Your task to perform on an android device: turn on airplane mode Image 0: 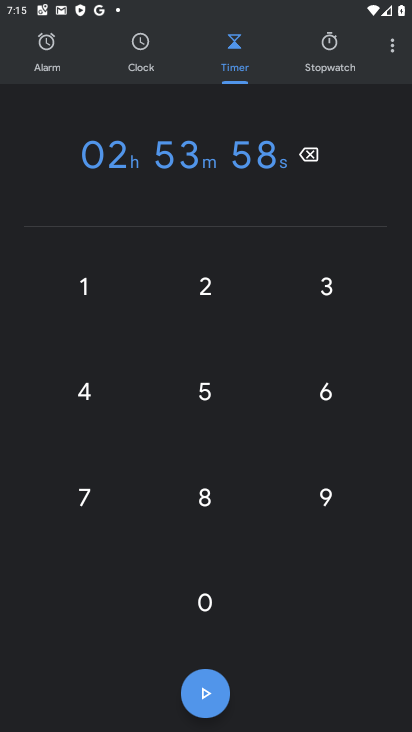
Step 0: press home button
Your task to perform on an android device: turn on airplane mode Image 1: 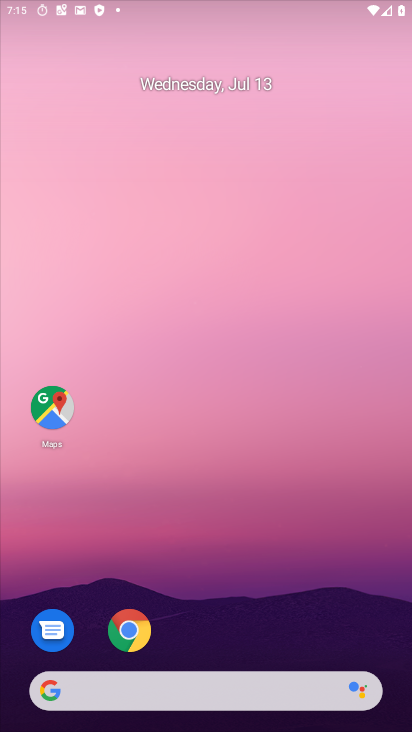
Step 1: drag from (310, 493) to (221, 30)
Your task to perform on an android device: turn on airplane mode Image 2: 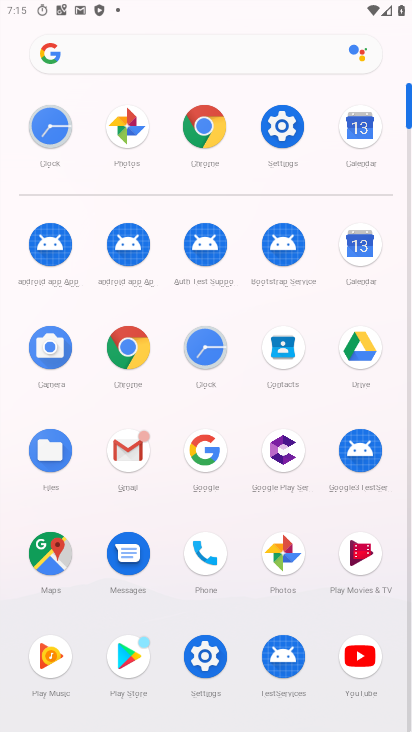
Step 2: drag from (271, 50) to (352, 551)
Your task to perform on an android device: turn on airplane mode Image 3: 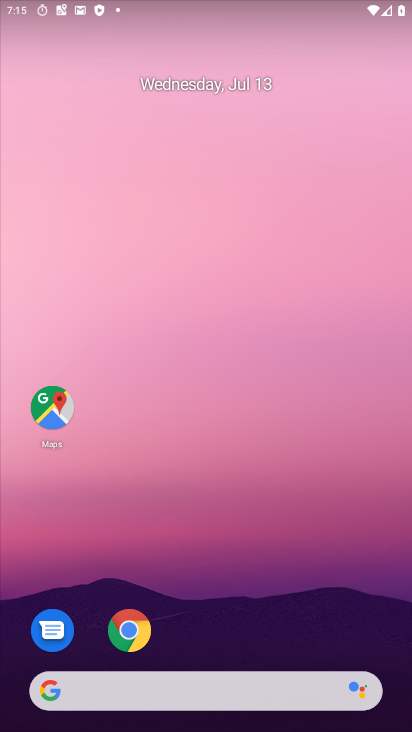
Step 3: drag from (247, 1) to (270, 580)
Your task to perform on an android device: turn on airplane mode Image 4: 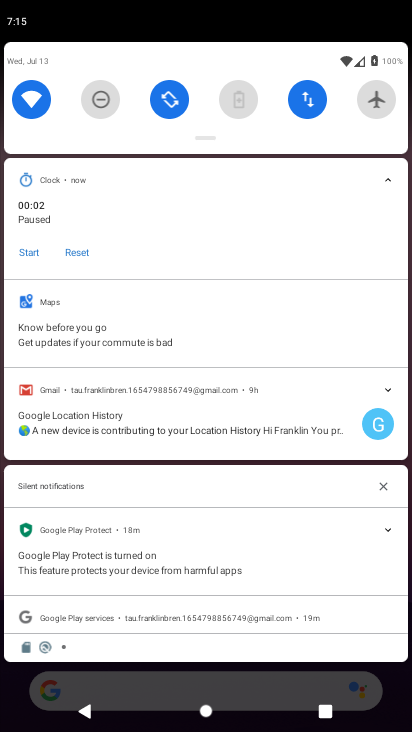
Step 4: click (386, 106)
Your task to perform on an android device: turn on airplane mode Image 5: 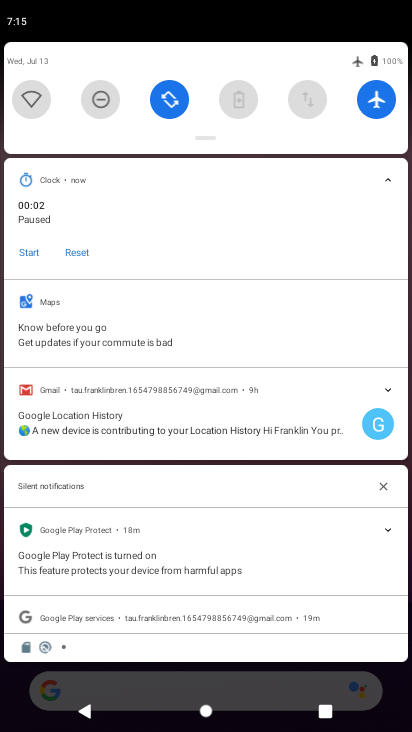
Step 5: task complete